Your task to perform on an android device: move a message to another label in the gmail app Image 0: 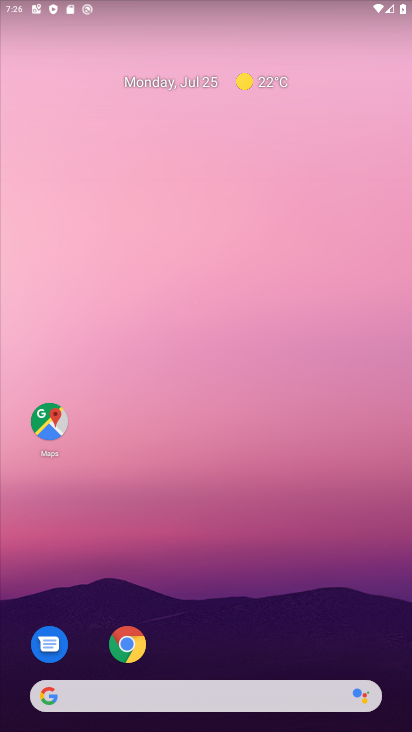
Step 0: press home button
Your task to perform on an android device: move a message to another label in the gmail app Image 1: 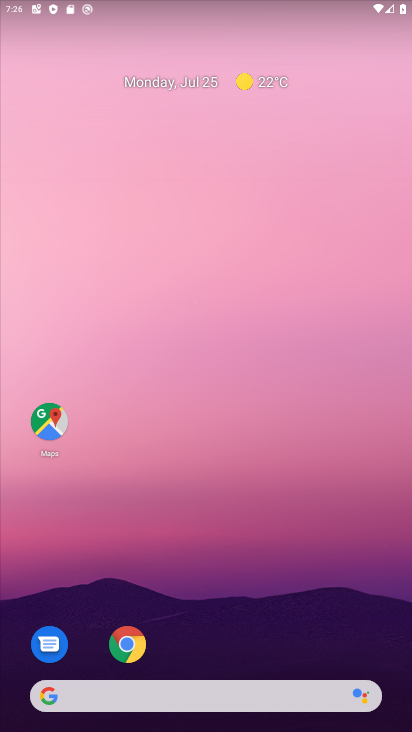
Step 1: drag from (193, 663) to (209, 14)
Your task to perform on an android device: move a message to another label in the gmail app Image 2: 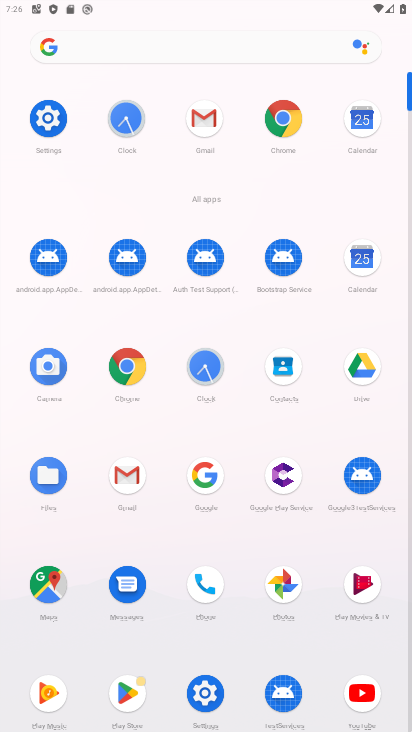
Step 2: click (203, 112)
Your task to perform on an android device: move a message to another label in the gmail app Image 3: 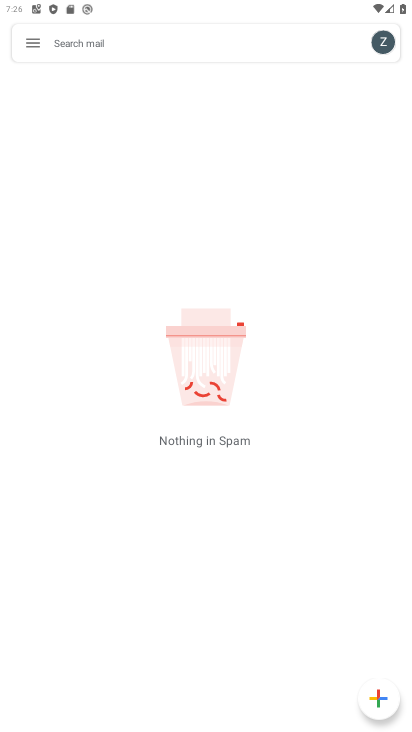
Step 3: click (30, 45)
Your task to perform on an android device: move a message to another label in the gmail app Image 4: 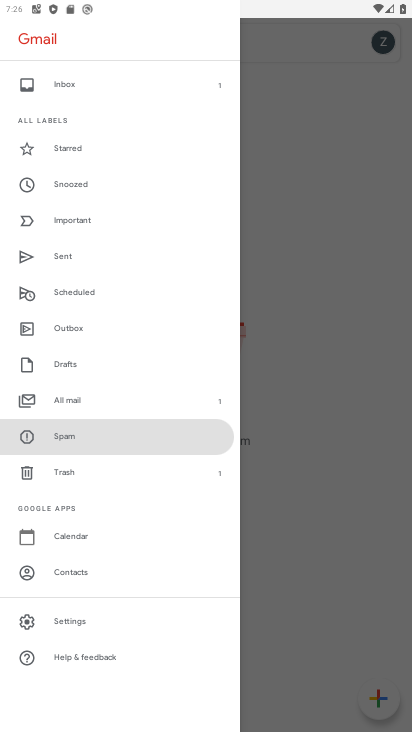
Step 4: click (85, 397)
Your task to perform on an android device: move a message to another label in the gmail app Image 5: 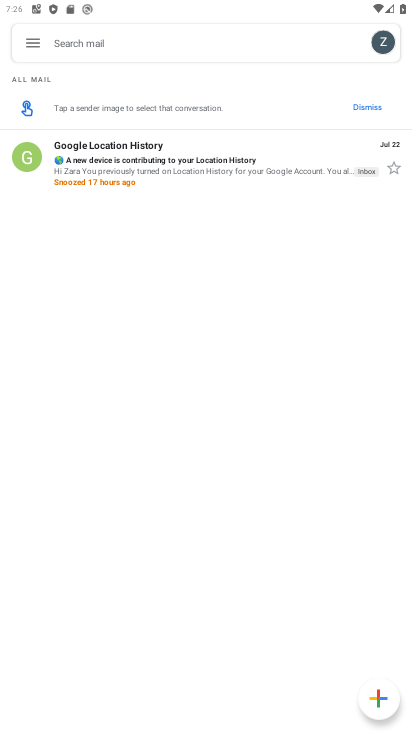
Step 5: click (30, 157)
Your task to perform on an android device: move a message to another label in the gmail app Image 6: 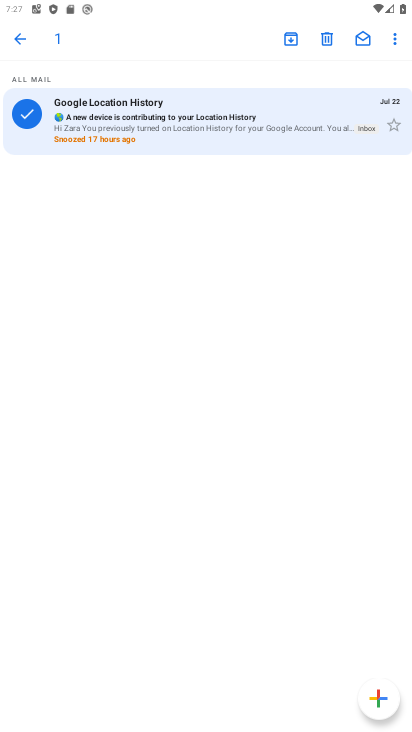
Step 6: click (393, 39)
Your task to perform on an android device: move a message to another label in the gmail app Image 7: 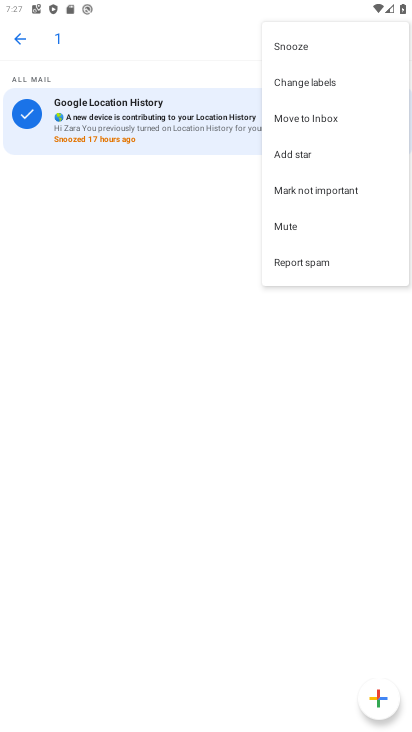
Step 7: click (316, 120)
Your task to perform on an android device: move a message to another label in the gmail app Image 8: 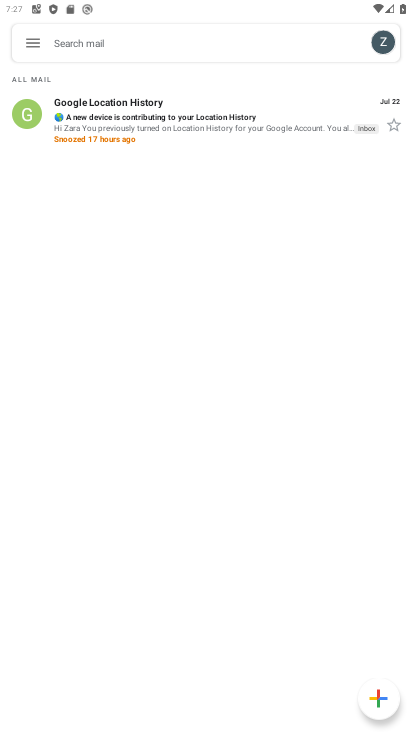
Step 8: task complete